Your task to perform on an android device: turn off javascript in the chrome app Image 0: 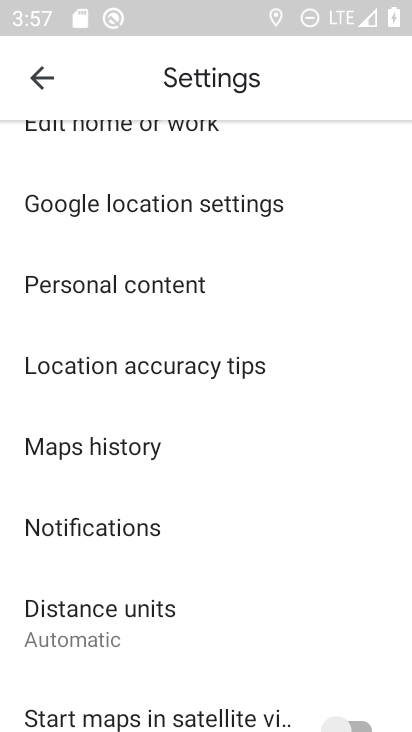
Step 0: press home button
Your task to perform on an android device: turn off javascript in the chrome app Image 1: 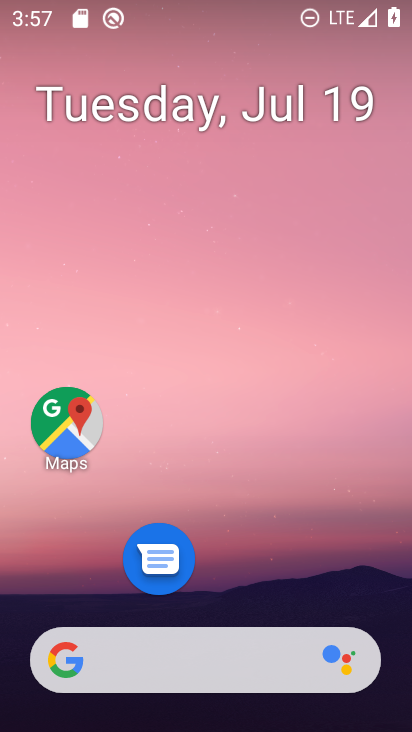
Step 1: drag from (317, 644) to (323, 260)
Your task to perform on an android device: turn off javascript in the chrome app Image 2: 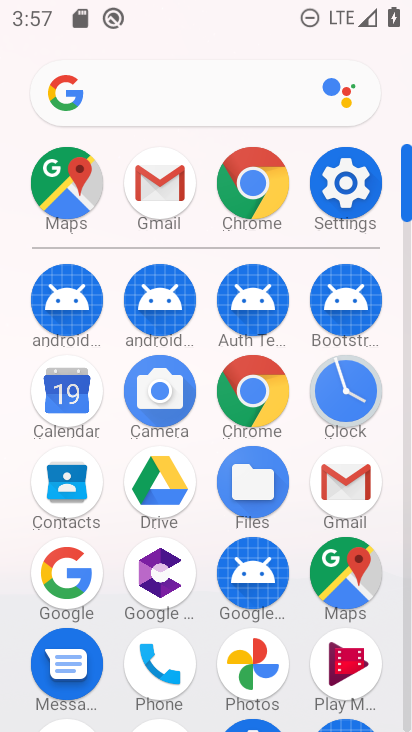
Step 2: click (227, 416)
Your task to perform on an android device: turn off javascript in the chrome app Image 3: 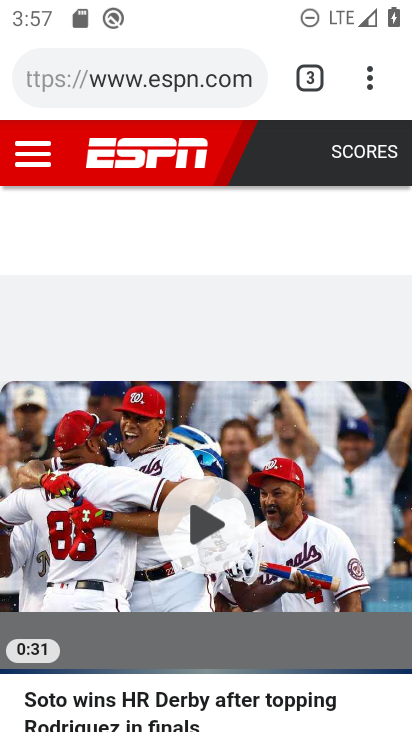
Step 3: click (373, 88)
Your task to perform on an android device: turn off javascript in the chrome app Image 4: 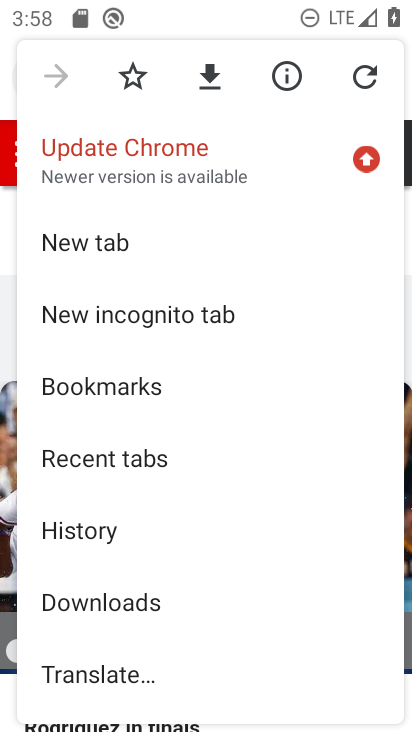
Step 4: drag from (201, 647) to (169, 352)
Your task to perform on an android device: turn off javascript in the chrome app Image 5: 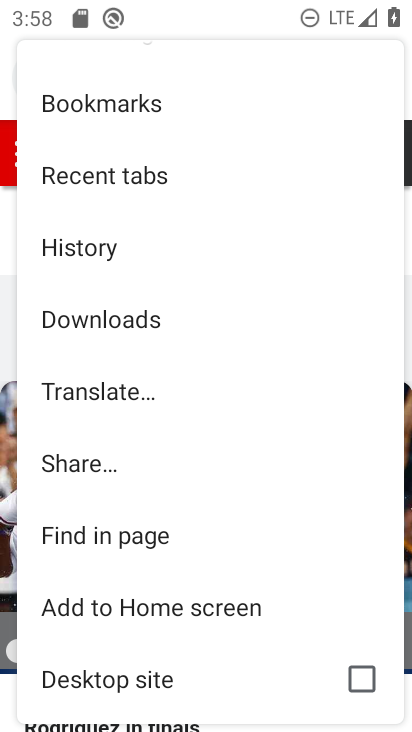
Step 5: drag from (157, 488) to (146, 180)
Your task to perform on an android device: turn off javascript in the chrome app Image 6: 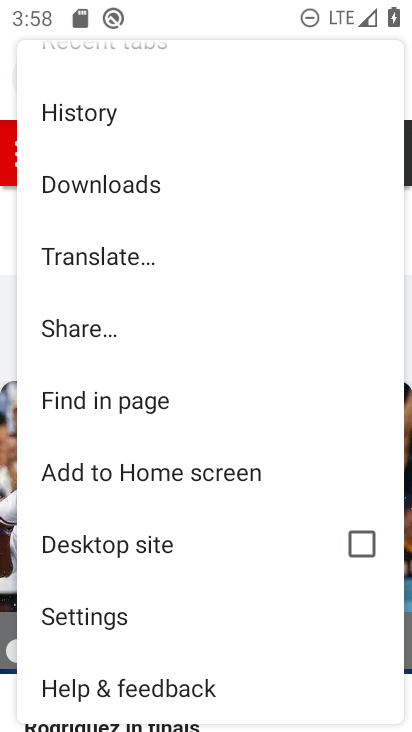
Step 6: click (116, 622)
Your task to perform on an android device: turn off javascript in the chrome app Image 7: 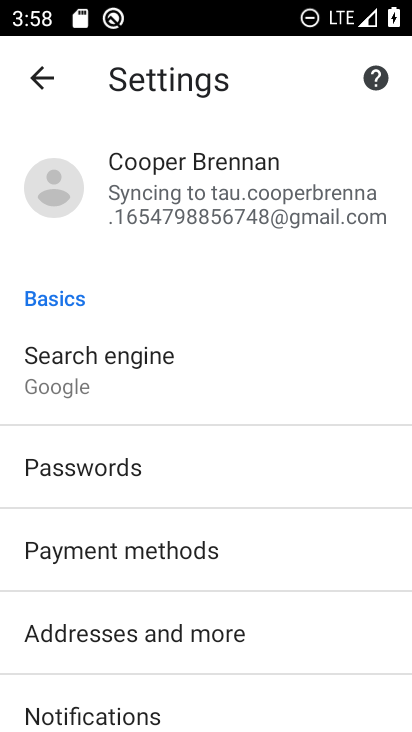
Step 7: drag from (139, 599) to (132, 267)
Your task to perform on an android device: turn off javascript in the chrome app Image 8: 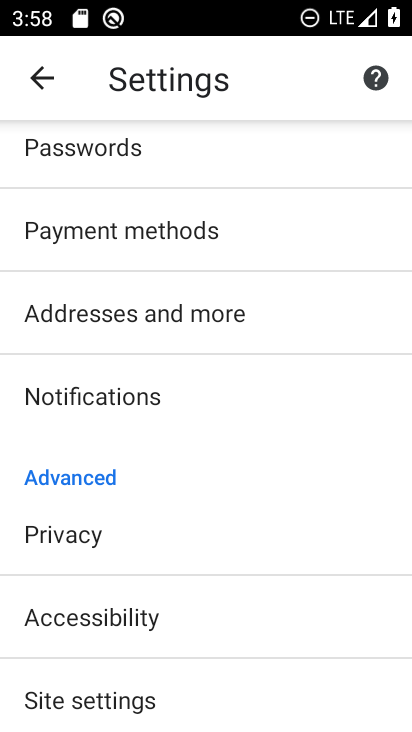
Step 8: click (129, 700)
Your task to perform on an android device: turn off javascript in the chrome app Image 9: 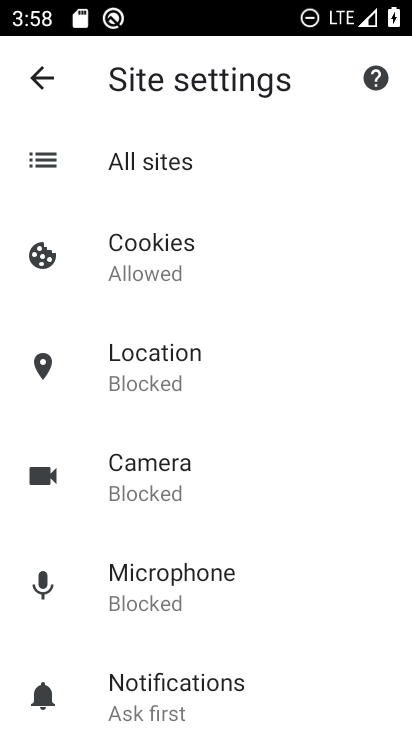
Step 9: drag from (183, 583) to (202, 309)
Your task to perform on an android device: turn off javascript in the chrome app Image 10: 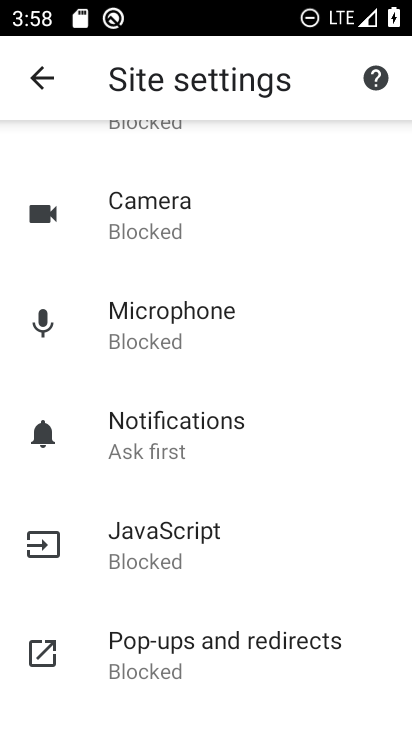
Step 10: click (196, 563)
Your task to perform on an android device: turn off javascript in the chrome app Image 11: 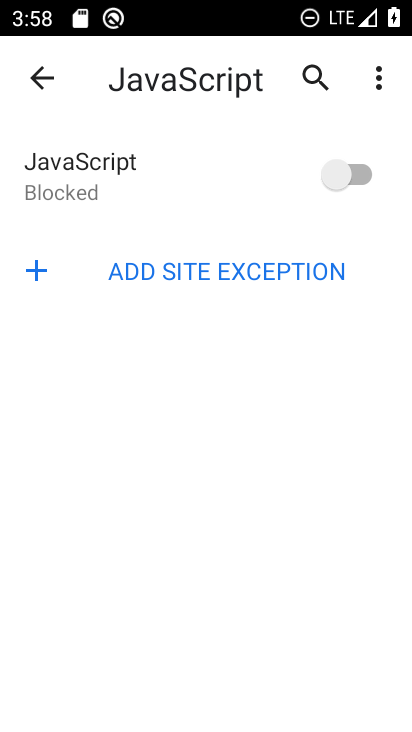
Step 11: task complete